Your task to perform on an android device: turn off translation in the chrome app Image 0: 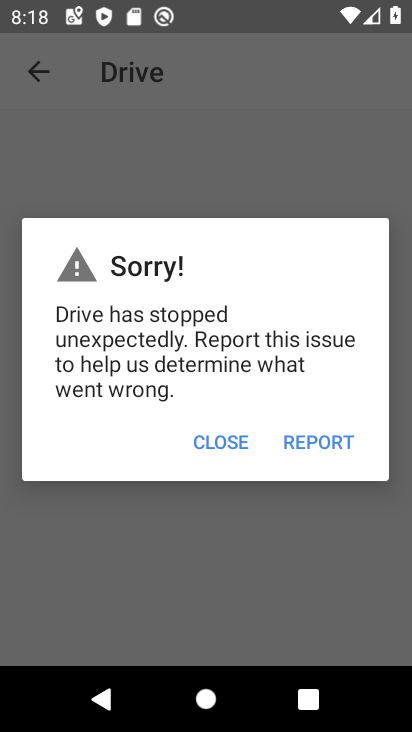
Step 0: press home button
Your task to perform on an android device: turn off translation in the chrome app Image 1: 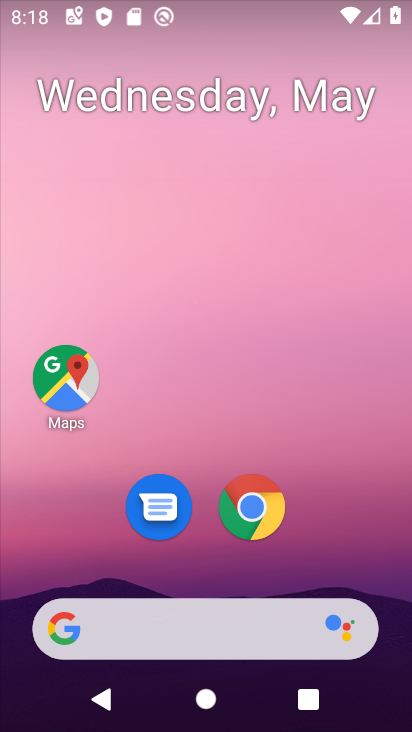
Step 1: drag from (350, 513) to (303, 238)
Your task to perform on an android device: turn off translation in the chrome app Image 2: 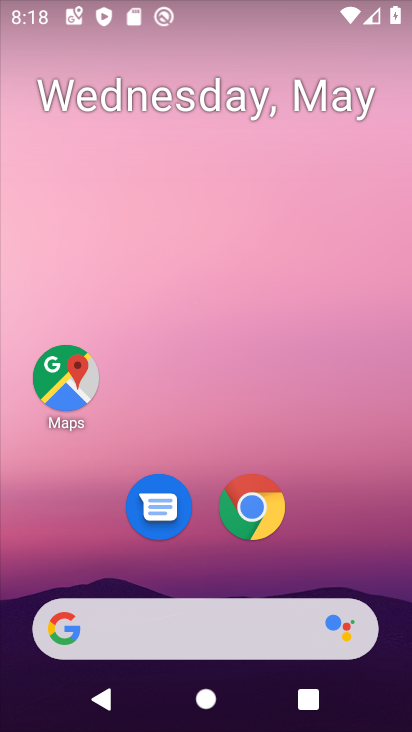
Step 2: click (253, 512)
Your task to perform on an android device: turn off translation in the chrome app Image 3: 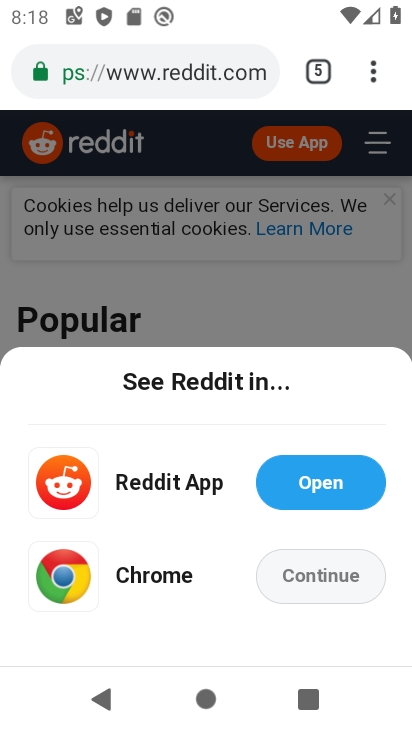
Step 3: click (380, 76)
Your task to perform on an android device: turn off translation in the chrome app Image 4: 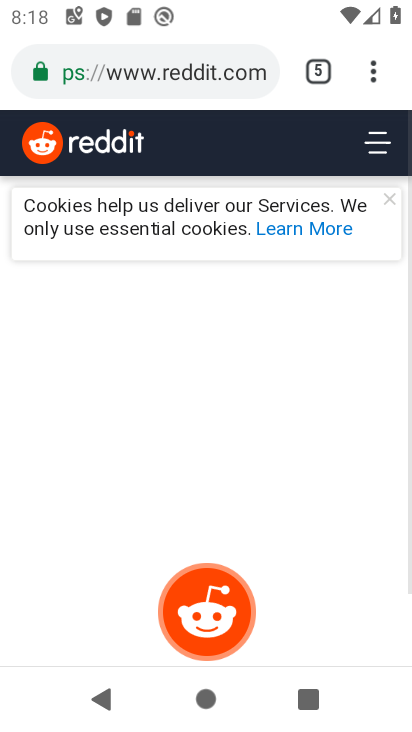
Step 4: click (367, 69)
Your task to perform on an android device: turn off translation in the chrome app Image 5: 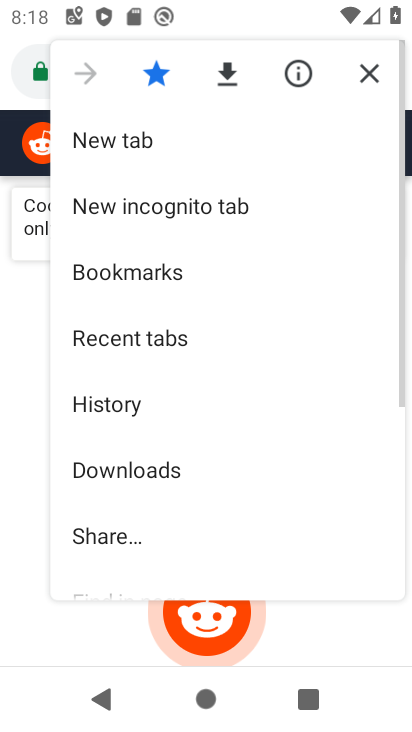
Step 5: drag from (220, 535) to (271, 169)
Your task to perform on an android device: turn off translation in the chrome app Image 6: 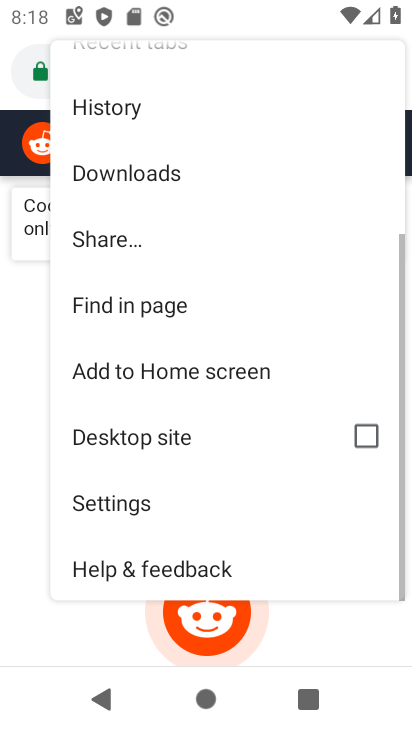
Step 6: click (150, 507)
Your task to perform on an android device: turn off translation in the chrome app Image 7: 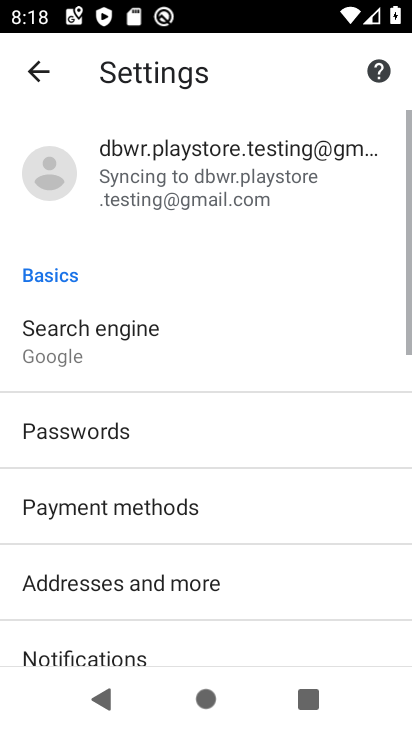
Step 7: drag from (221, 602) to (262, 288)
Your task to perform on an android device: turn off translation in the chrome app Image 8: 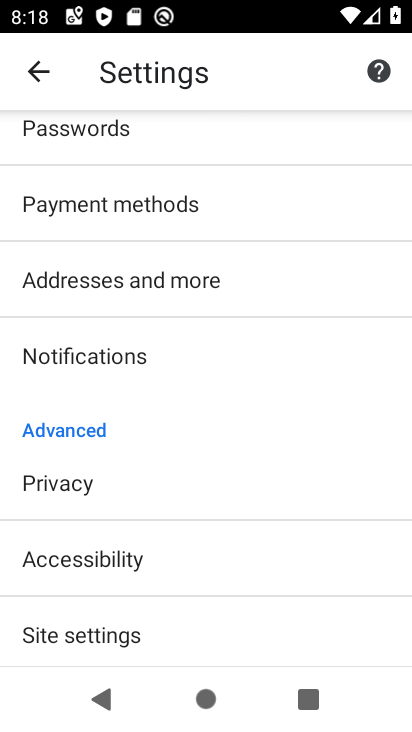
Step 8: drag from (129, 569) to (178, 289)
Your task to perform on an android device: turn off translation in the chrome app Image 9: 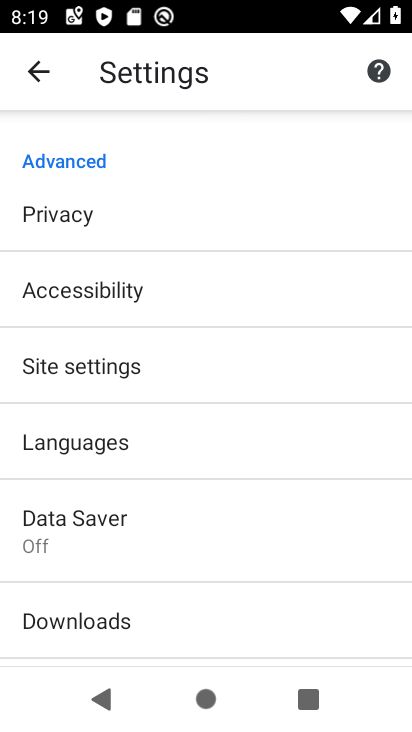
Step 9: click (145, 351)
Your task to perform on an android device: turn off translation in the chrome app Image 10: 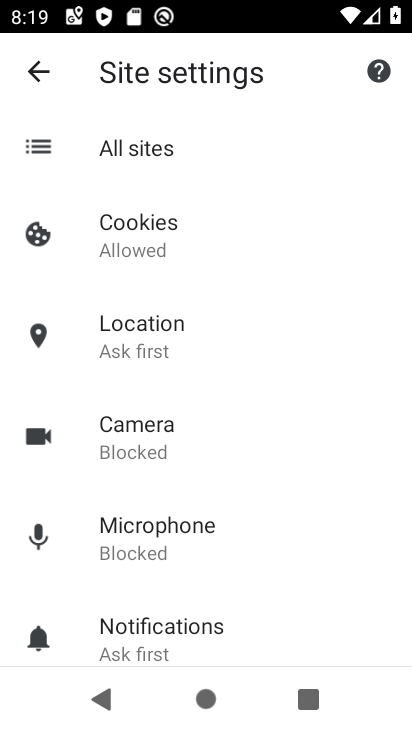
Step 10: click (186, 334)
Your task to perform on an android device: turn off translation in the chrome app Image 11: 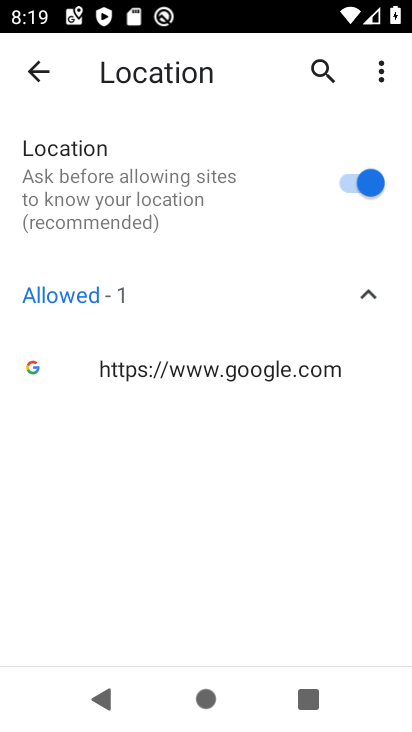
Step 11: click (50, 75)
Your task to perform on an android device: turn off translation in the chrome app Image 12: 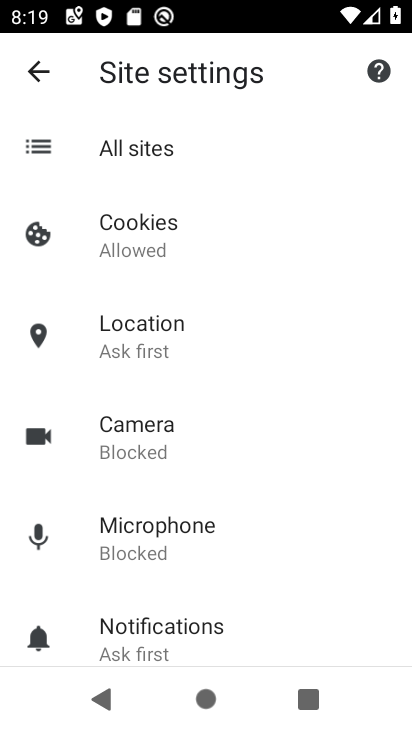
Step 12: click (23, 68)
Your task to perform on an android device: turn off translation in the chrome app Image 13: 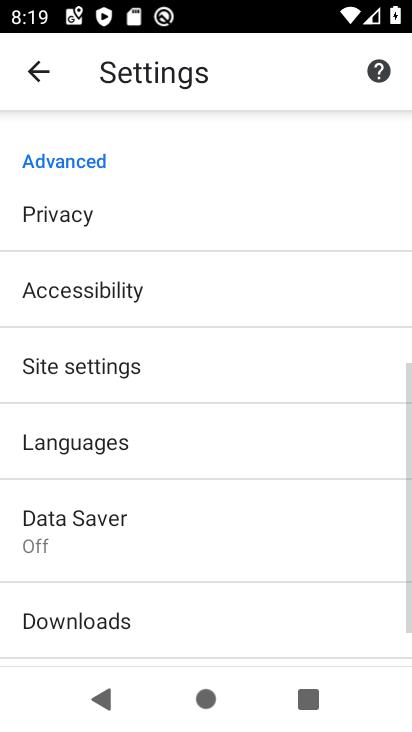
Step 13: click (197, 442)
Your task to perform on an android device: turn off translation in the chrome app Image 14: 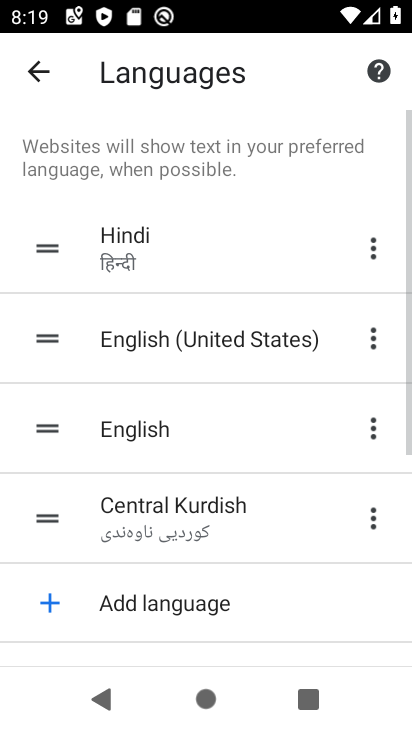
Step 14: drag from (328, 595) to (318, 318)
Your task to perform on an android device: turn off translation in the chrome app Image 15: 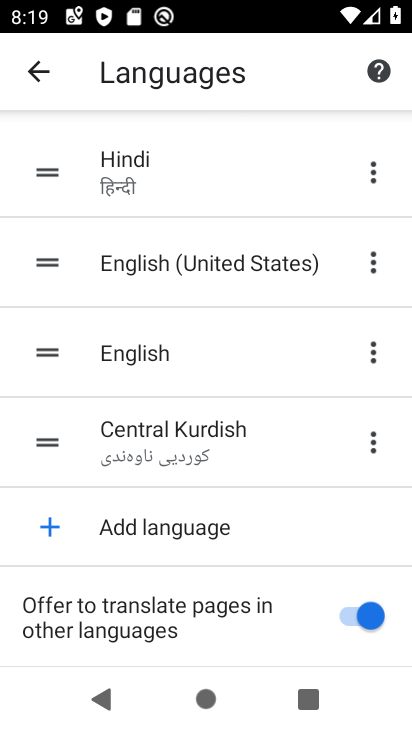
Step 15: click (363, 622)
Your task to perform on an android device: turn off translation in the chrome app Image 16: 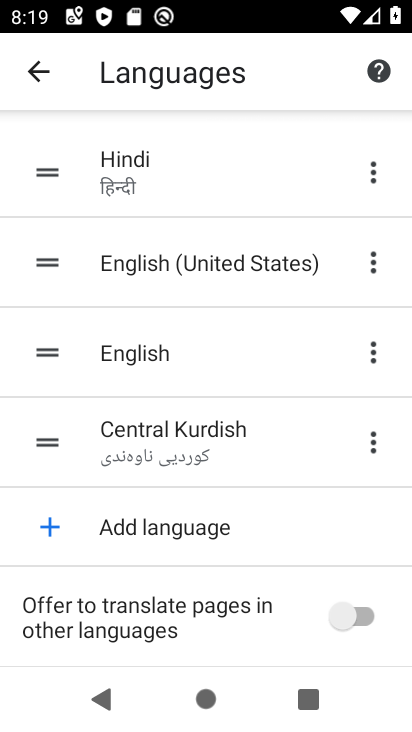
Step 16: task complete